Your task to perform on an android device: What is the news today? Image 0: 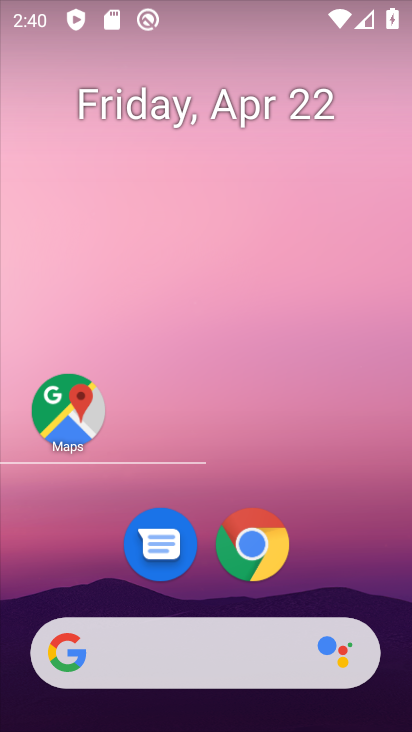
Step 0: click (281, 563)
Your task to perform on an android device: What is the news today? Image 1: 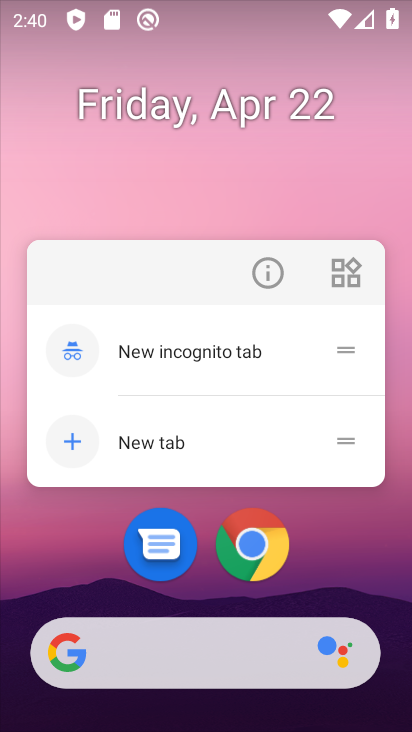
Step 1: click (245, 546)
Your task to perform on an android device: What is the news today? Image 2: 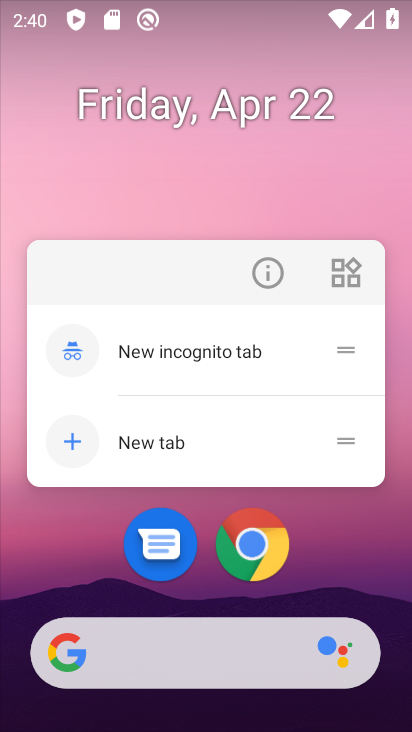
Step 2: click (245, 546)
Your task to perform on an android device: What is the news today? Image 3: 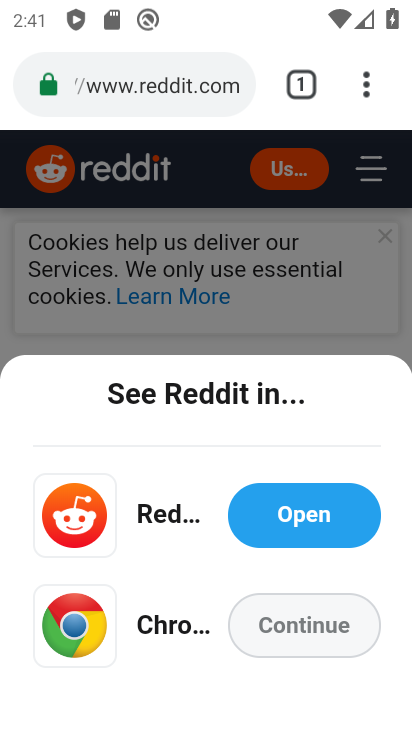
Step 3: click (132, 95)
Your task to perform on an android device: What is the news today? Image 4: 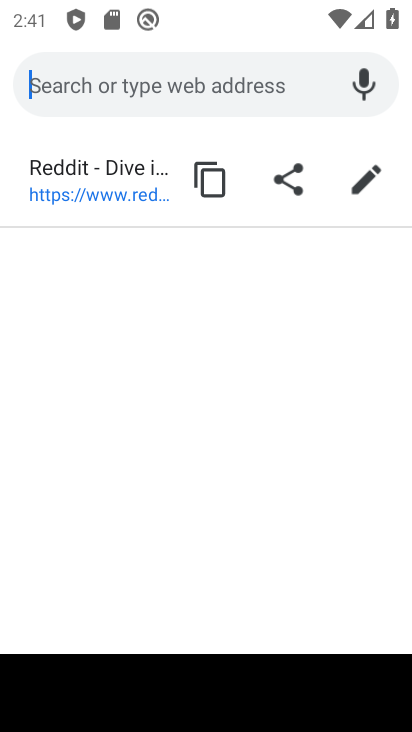
Step 4: type "what is the news today"
Your task to perform on an android device: What is the news today? Image 5: 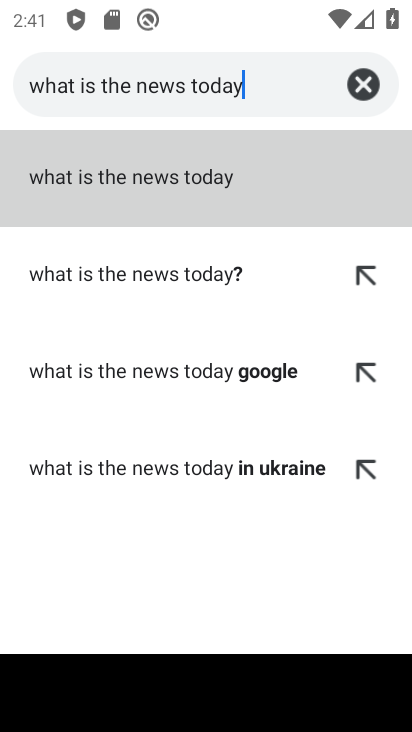
Step 5: click (144, 171)
Your task to perform on an android device: What is the news today? Image 6: 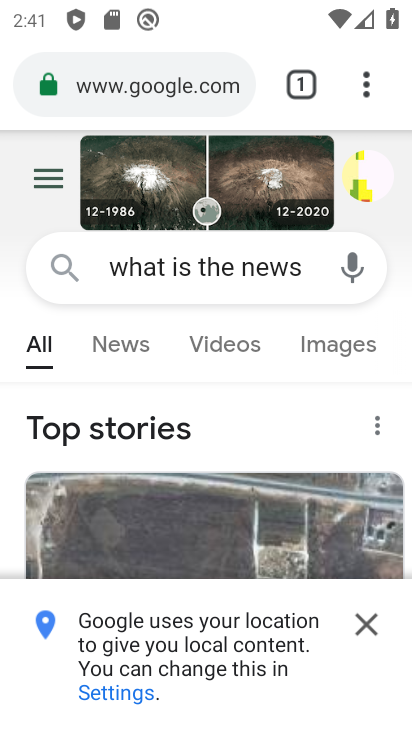
Step 6: task complete